Your task to perform on an android device: Open Google Image 0: 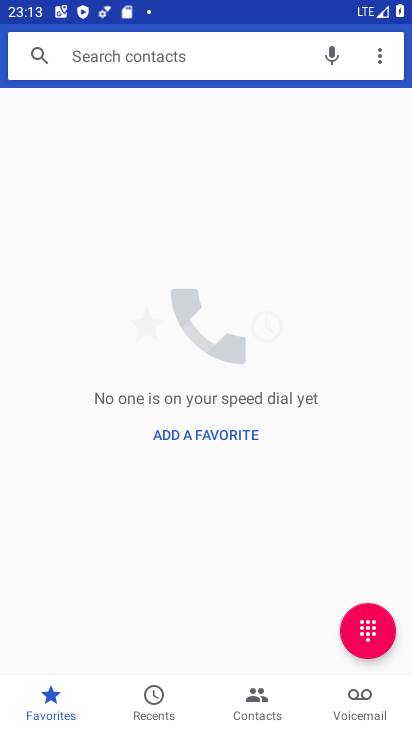
Step 0: press home button
Your task to perform on an android device: Open Google Image 1: 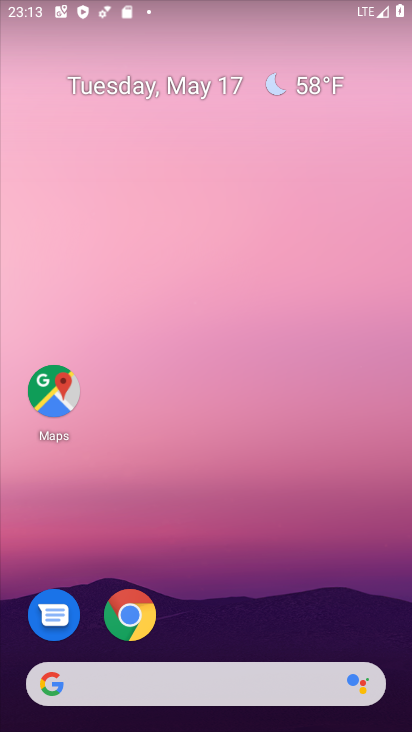
Step 1: drag from (225, 614) to (218, 261)
Your task to perform on an android device: Open Google Image 2: 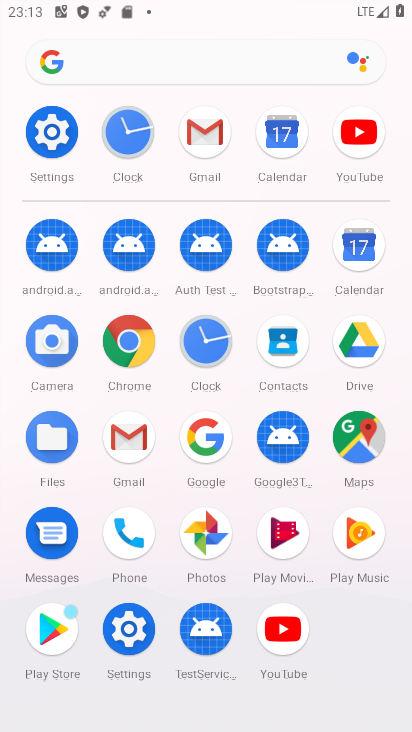
Step 2: click (202, 424)
Your task to perform on an android device: Open Google Image 3: 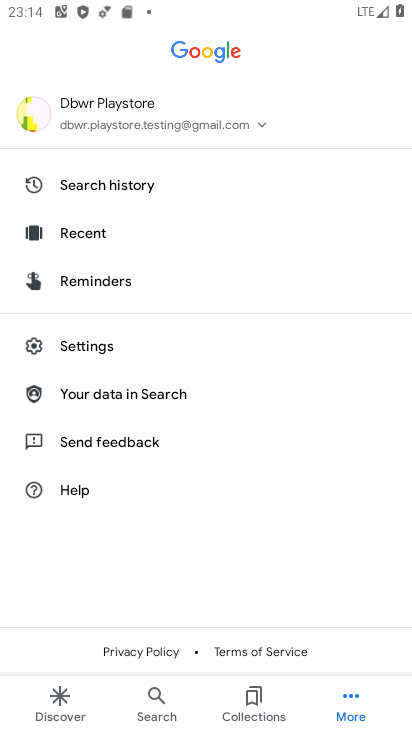
Step 3: task complete